Your task to perform on an android device: What's the weather today? Image 0: 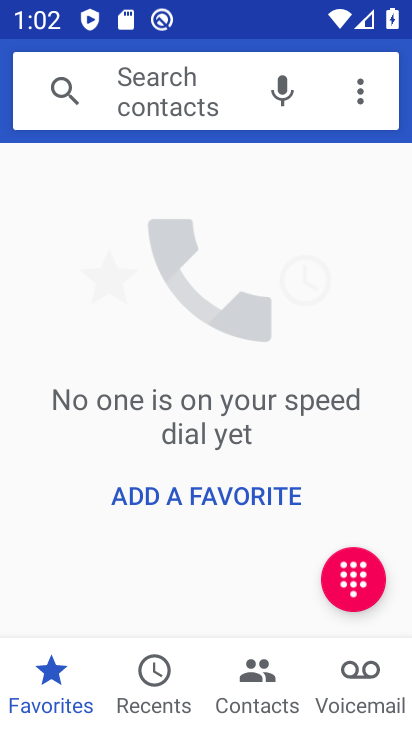
Step 0: press home button
Your task to perform on an android device: What's the weather today? Image 1: 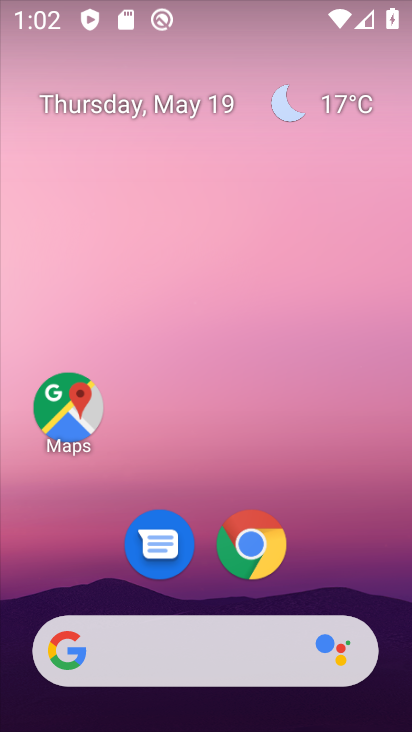
Step 1: drag from (202, 723) to (207, 161)
Your task to perform on an android device: What's the weather today? Image 2: 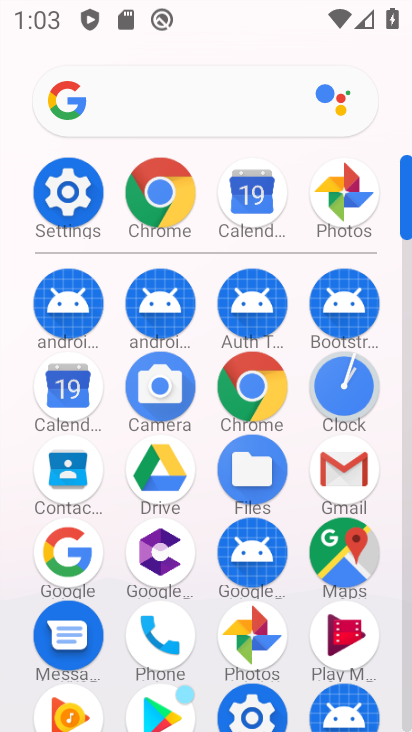
Step 2: click (78, 550)
Your task to perform on an android device: What's the weather today? Image 3: 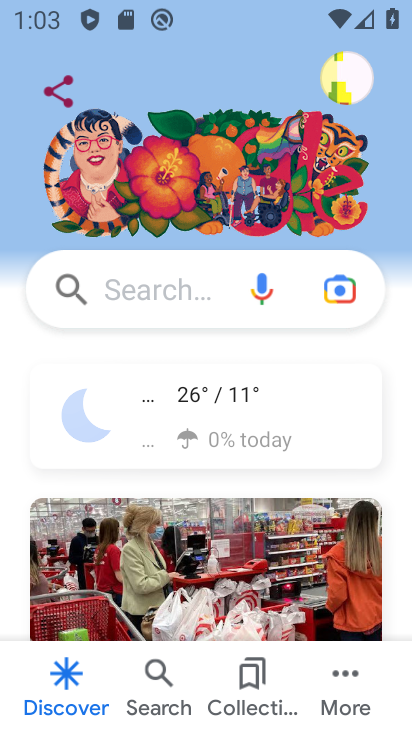
Step 3: click (188, 416)
Your task to perform on an android device: What's the weather today? Image 4: 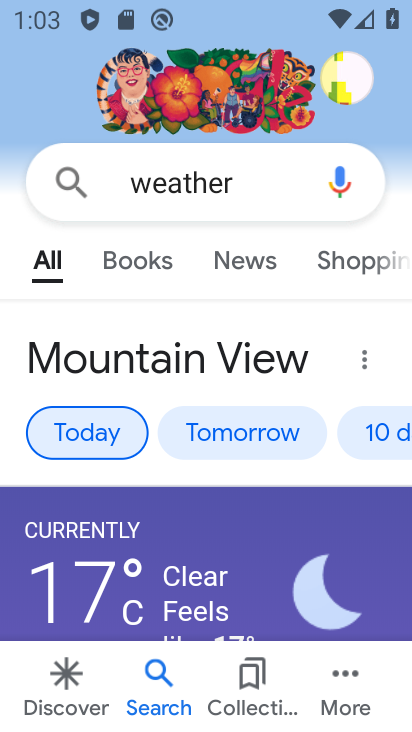
Step 4: task complete